Your task to perform on an android device: Set the phone to "Do not disturb". Image 0: 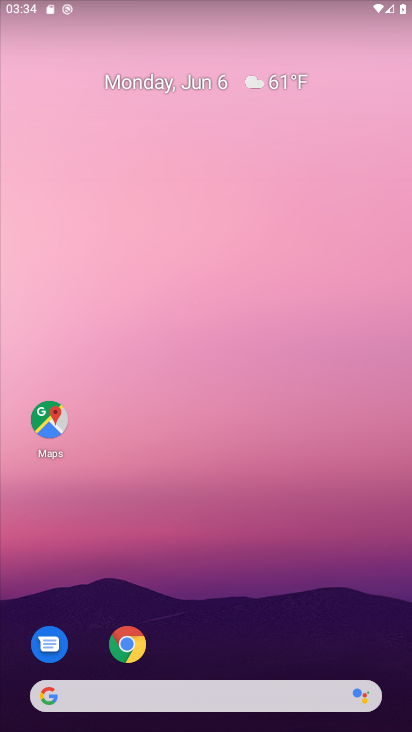
Step 0: drag from (201, 652) to (213, 69)
Your task to perform on an android device: Set the phone to "Do not disturb". Image 1: 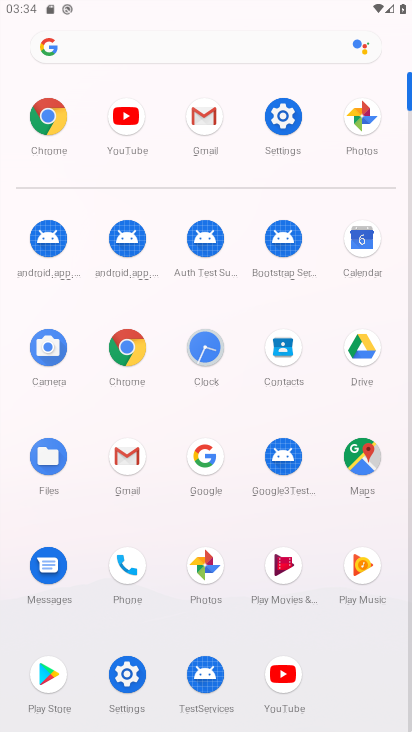
Step 1: click (129, 684)
Your task to perform on an android device: Set the phone to "Do not disturb". Image 2: 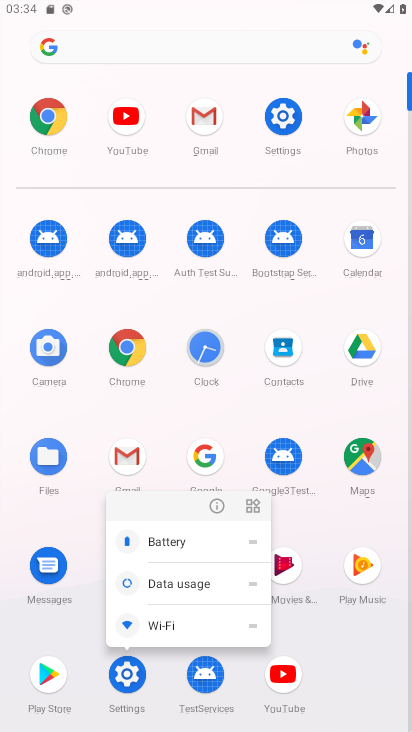
Step 2: click (128, 682)
Your task to perform on an android device: Set the phone to "Do not disturb". Image 3: 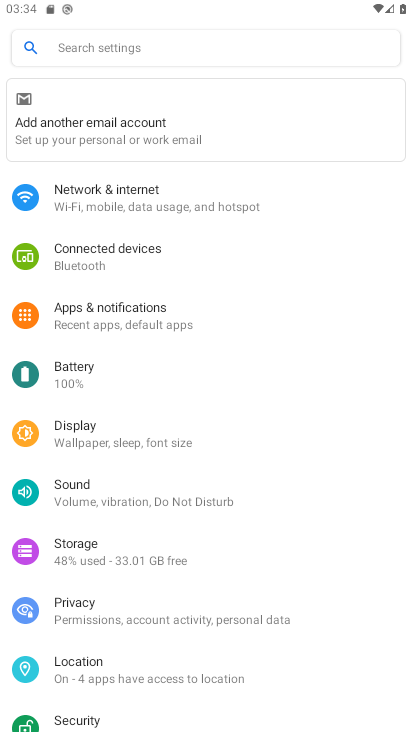
Step 3: click (121, 497)
Your task to perform on an android device: Set the phone to "Do not disturb". Image 4: 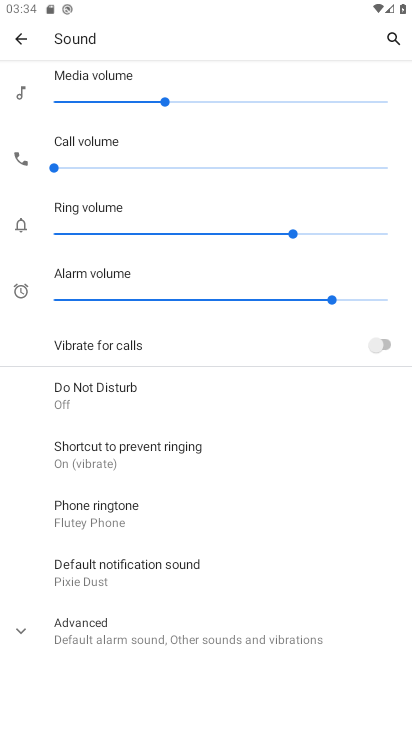
Step 4: click (104, 400)
Your task to perform on an android device: Set the phone to "Do not disturb". Image 5: 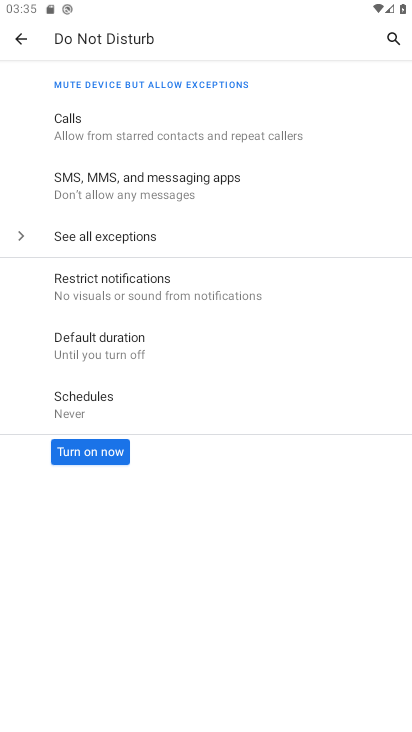
Step 5: click (100, 445)
Your task to perform on an android device: Set the phone to "Do not disturb". Image 6: 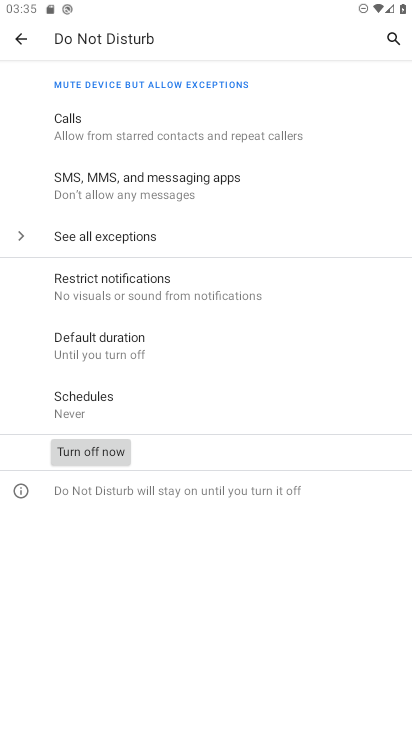
Step 6: task complete